Your task to perform on an android device: change notification settings in the gmail app Image 0: 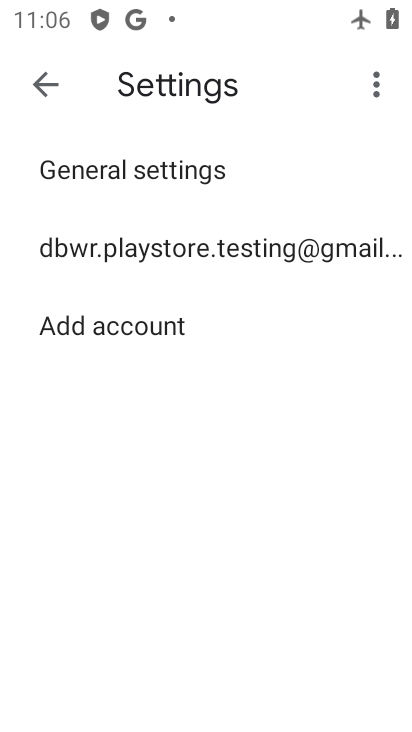
Step 0: press home button
Your task to perform on an android device: change notification settings in the gmail app Image 1: 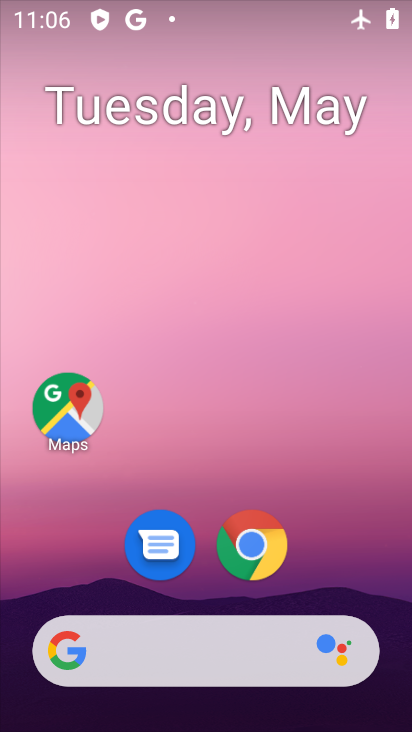
Step 1: drag from (372, 562) to (362, 131)
Your task to perform on an android device: change notification settings in the gmail app Image 2: 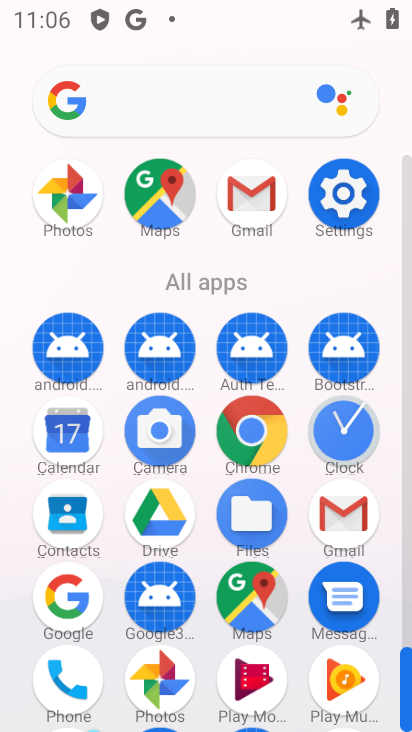
Step 2: click (363, 519)
Your task to perform on an android device: change notification settings in the gmail app Image 3: 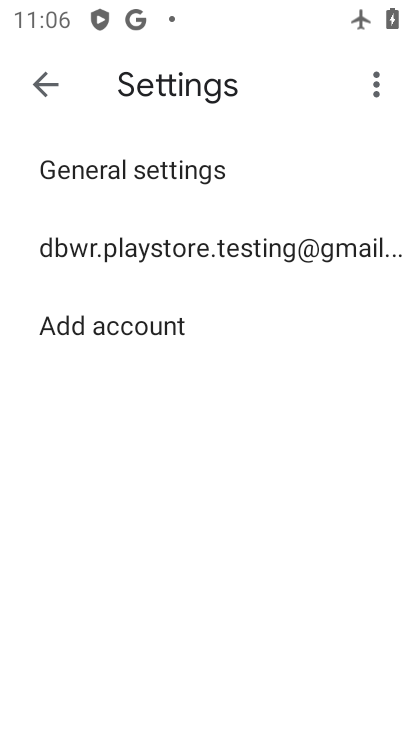
Step 3: click (242, 246)
Your task to perform on an android device: change notification settings in the gmail app Image 4: 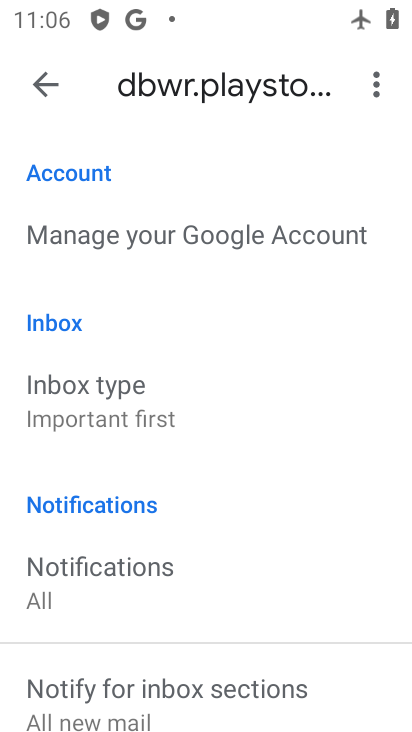
Step 4: click (108, 574)
Your task to perform on an android device: change notification settings in the gmail app Image 5: 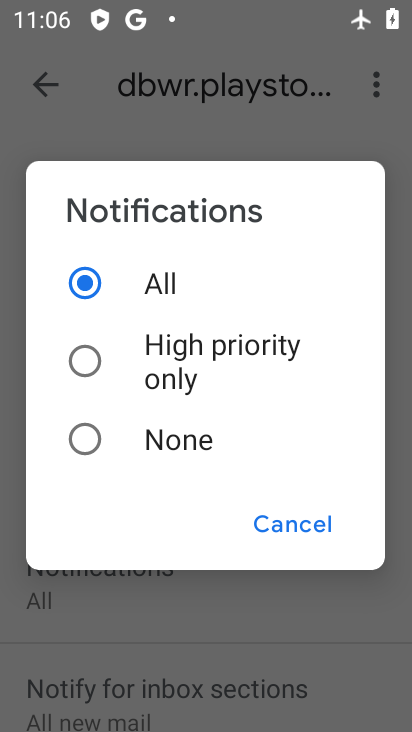
Step 5: click (82, 370)
Your task to perform on an android device: change notification settings in the gmail app Image 6: 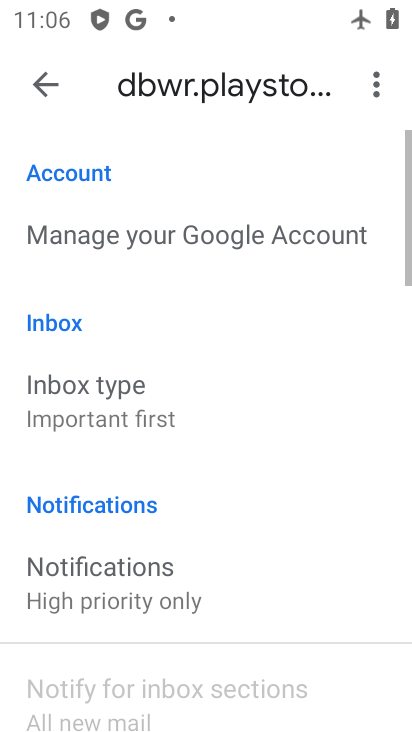
Step 6: task complete